Your task to perform on an android device: toggle data saver in the chrome app Image 0: 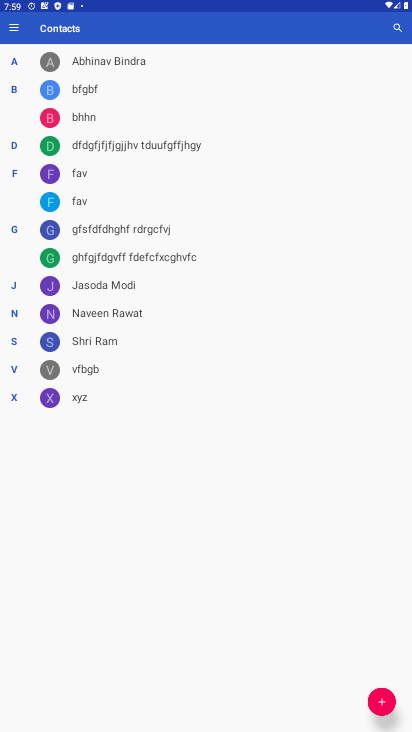
Step 0: press home button
Your task to perform on an android device: toggle data saver in the chrome app Image 1: 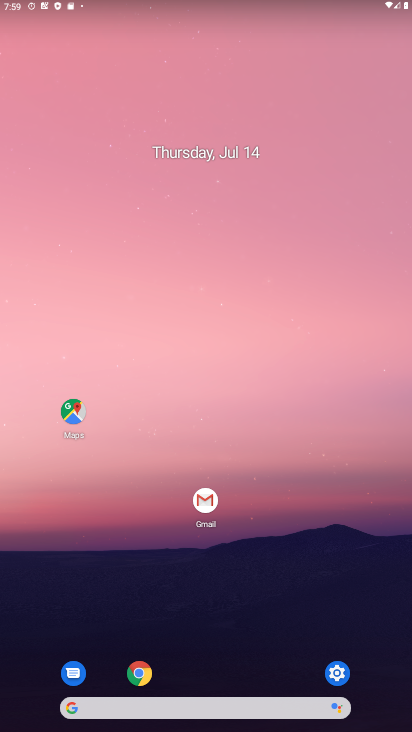
Step 1: click (144, 666)
Your task to perform on an android device: toggle data saver in the chrome app Image 2: 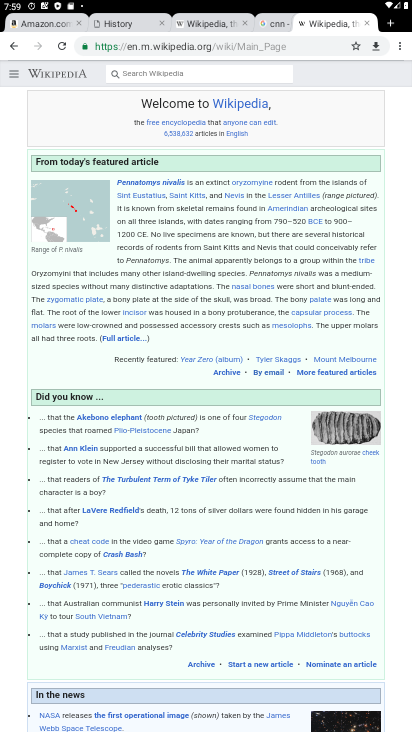
Step 2: click (397, 48)
Your task to perform on an android device: toggle data saver in the chrome app Image 3: 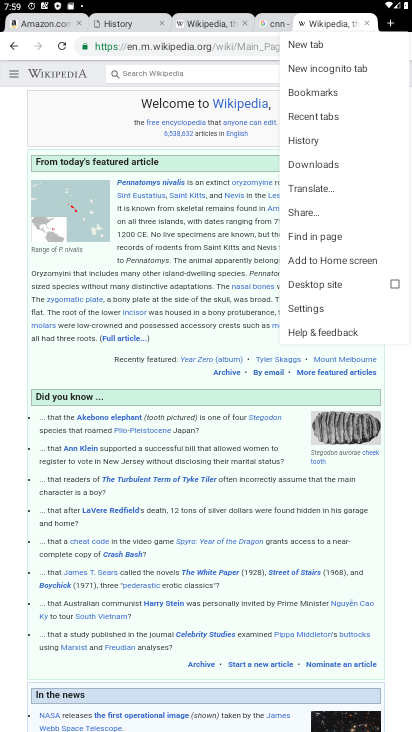
Step 3: click (307, 307)
Your task to perform on an android device: toggle data saver in the chrome app Image 4: 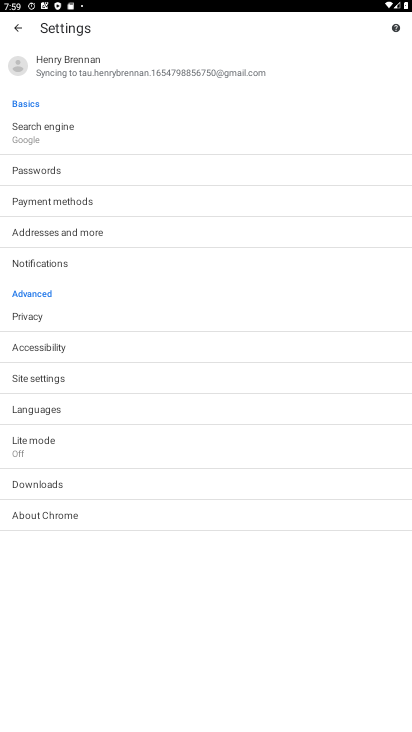
Step 4: click (49, 439)
Your task to perform on an android device: toggle data saver in the chrome app Image 5: 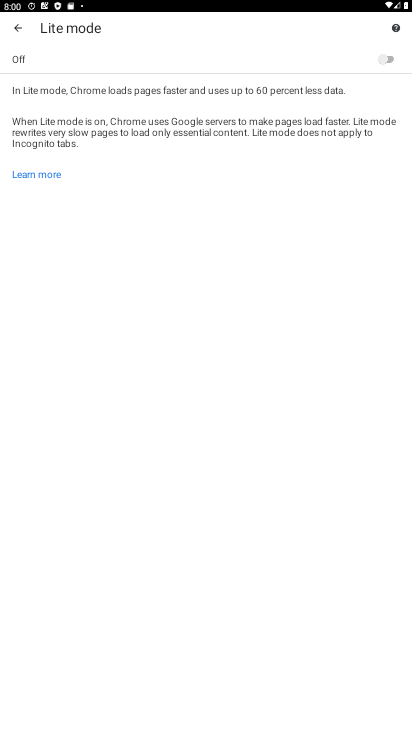
Step 5: task complete